Your task to perform on an android device: Show me the best 1080p monitor on Target.com Image 0: 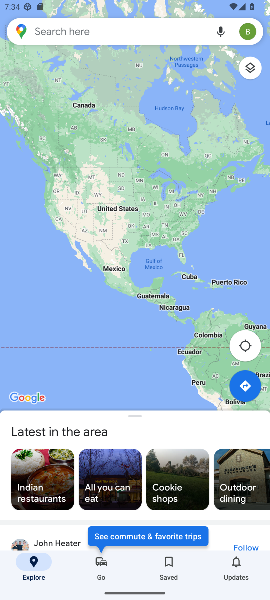
Step 0: press home button
Your task to perform on an android device: Show me the best 1080p monitor on Target.com Image 1: 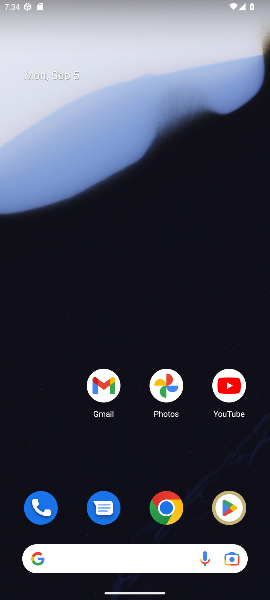
Step 1: click (175, 513)
Your task to perform on an android device: Show me the best 1080p monitor on Target.com Image 2: 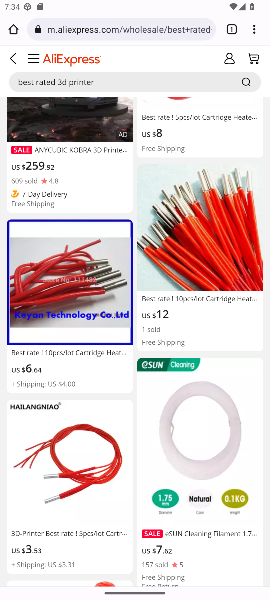
Step 2: click (95, 32)
Your task to perform on an android device: Show me the best 1080p monitor on Target.com Image 3: 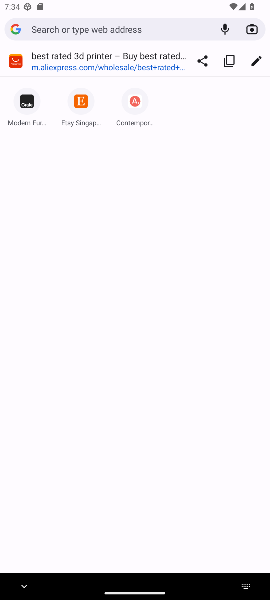
Step 3: type "Target.com"
Your task to perform on an android device: Show me the best 1080p monitor on Target.com Image 4: 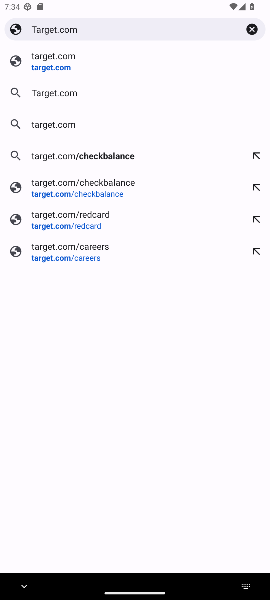
Step 4: click (58, 67)
Your task to perform on an android device: Show me the best 1080p monitor on Target.com Image 5: 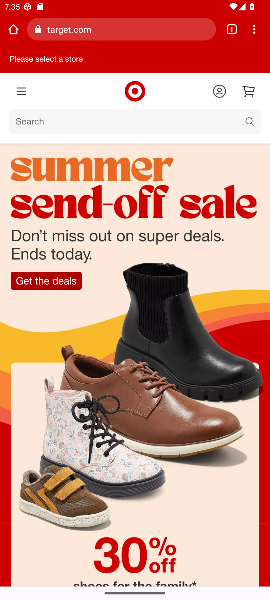
Step 5: click (248, 126)
Your task to perform on an android device: Show me the best 1080p monitor on Target.com Image 6: 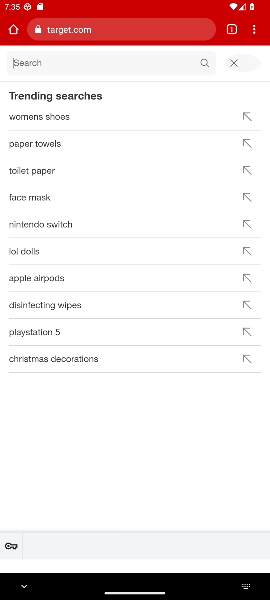
Step 6: type " best 1080p monitor "
Your task to perform on an android device: Show me the best 1080p monitor on Target.com Image 7: 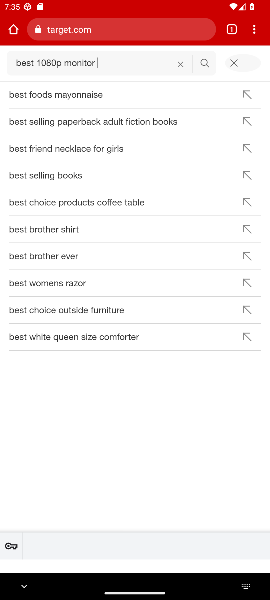
Step 7: click (204, 61)
Your task to perform on an android device: Show me the best 1080p monitor on Target.com Image 8: 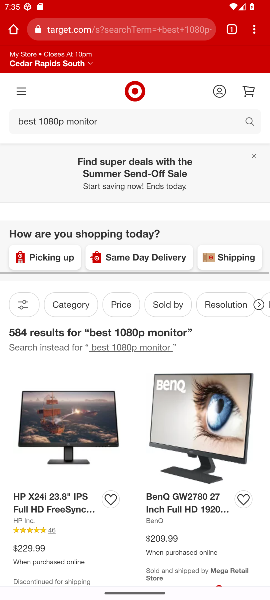
Step 8: task complete